Your task to perform on an android device: Show me the alarms in the clock app Image 0: 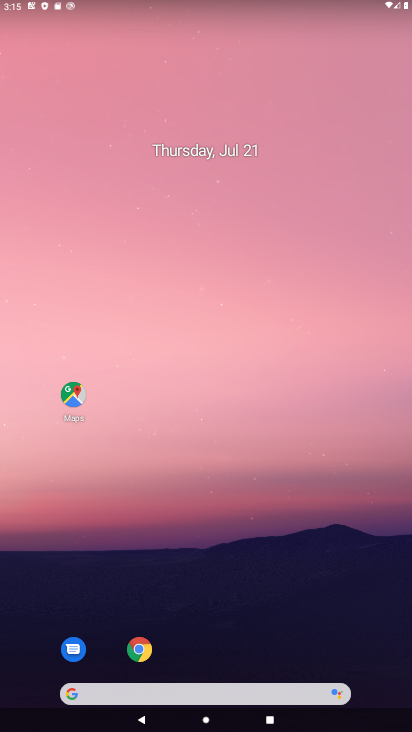
Step 0: drag from (278, 666) to (187, 38)
Your task to perform on an android device: Show me the alarms in the clock app Image 1: 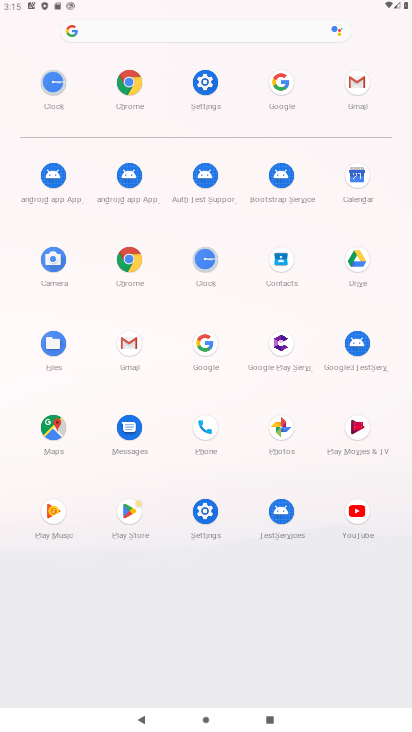
Step 1: click (38, 89)
Your task to perform on an android device: Show me the alarms in the clock app Image 2: 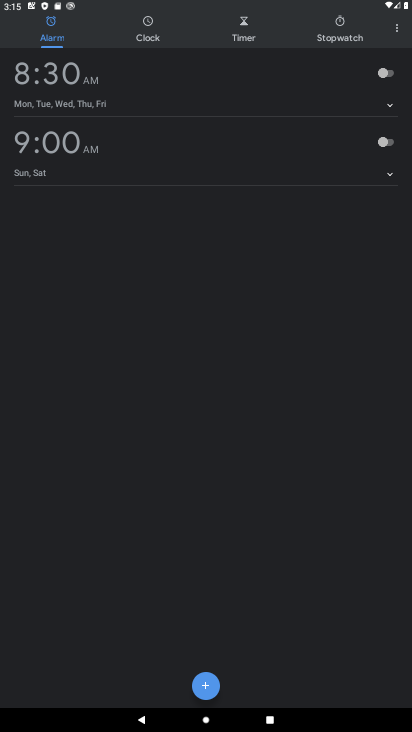
Step 2: click (391, 31)
Your task to perform on an android device: Show me the alarms in the clock app Image 3: 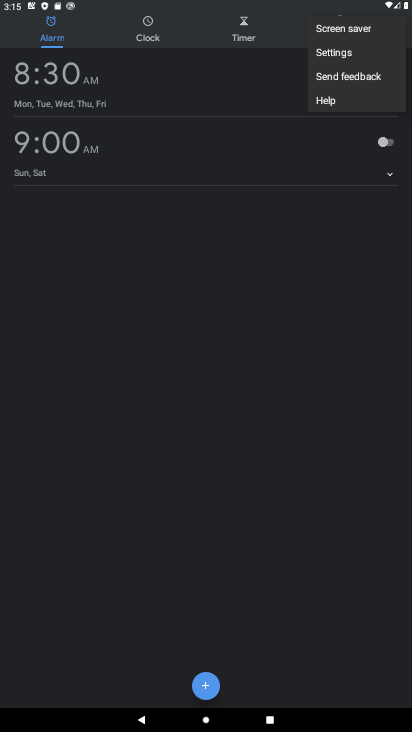
Step 3: click (350, 58)
Your task to perform on an android device: Show me the alarms in the clock app Image 4: 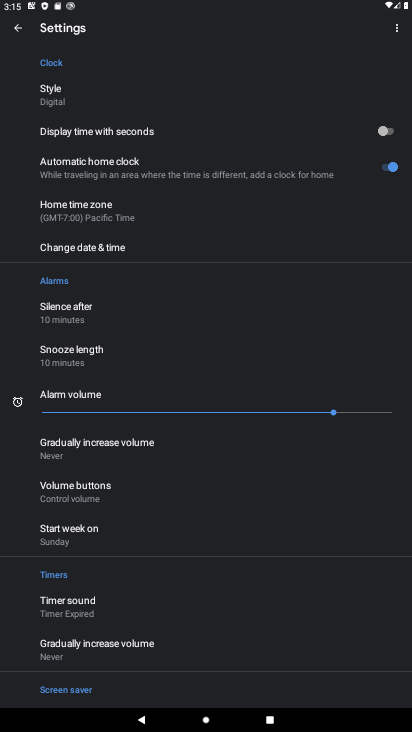
Step 4: press home button
Your task to perform on an android device: Show me the alarms in the clock app Image 5: 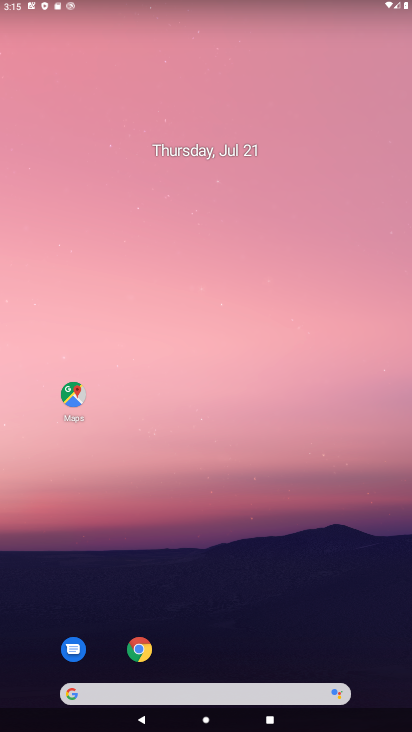
Step 5: drag from (192, 659) to (177, 76)
Your task to perform on an android device: Show me the alarms in the clock app Image 6: 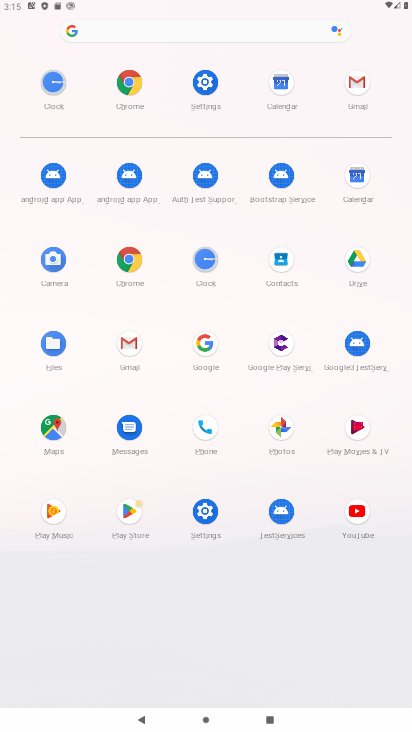
Step 6: click (59, 115)
Your task to perform on an android device: Show me the alarms in the clock app Image 7: 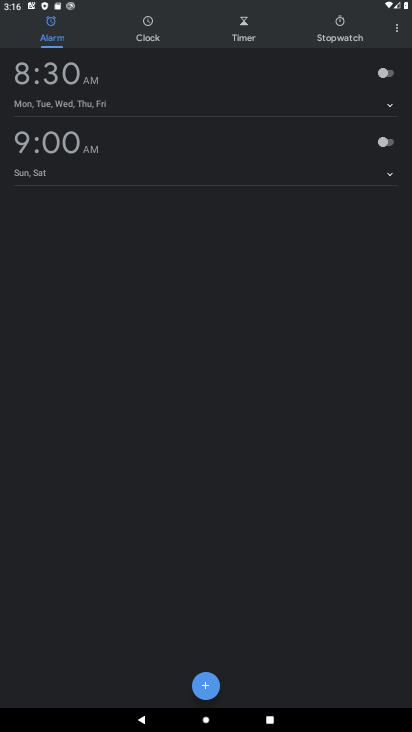
Step 7: click (374, 94)
Your task to perform on an android device: Show me the alarms in the clock app Image 8: 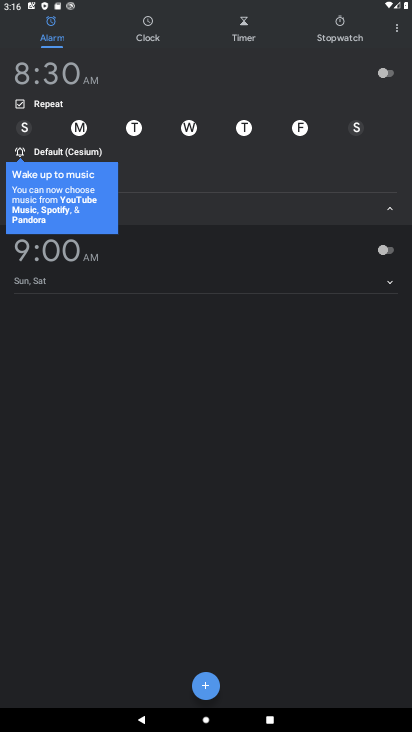
Step 8: click (378, 79)
Your task to perform on an android device: Show me the alarms in the clock app Image 9: 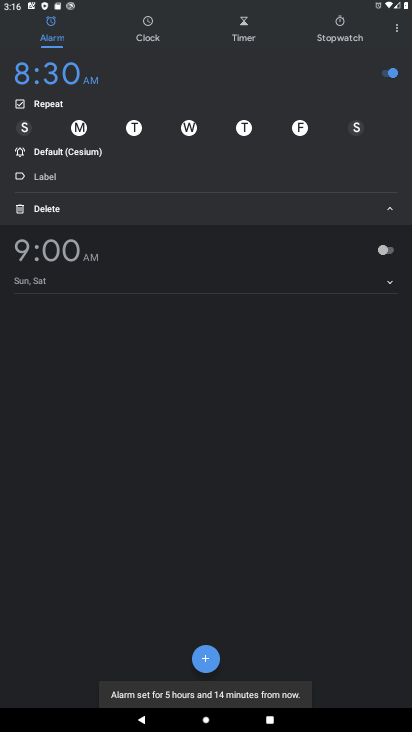
Step 9: task complete